Your task to perform on an android device: choose inbox layout in the gmail app Image 0: 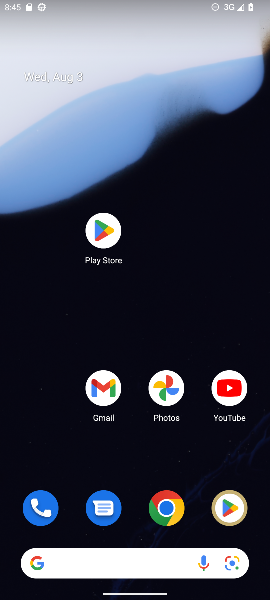
Step 0: drag from (151, 533) to (122, 34)
Your task to perform on an android device: choose inbox layout in the gmail app Image 1: 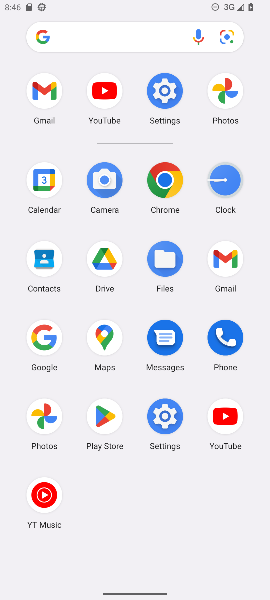
Step 1: click (233, 274)
Your task to perform on an android device: choose inbox layout in the gmail app Image 2: 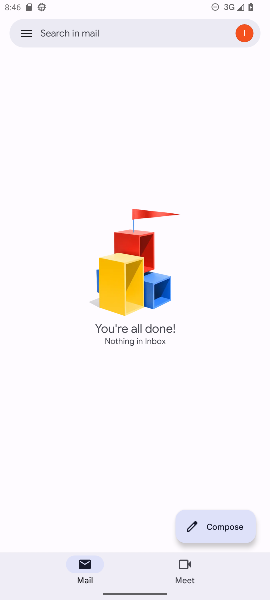
Step 2: task complete